Your task to perform on an android device: turn on bluetooth scan Image 0: 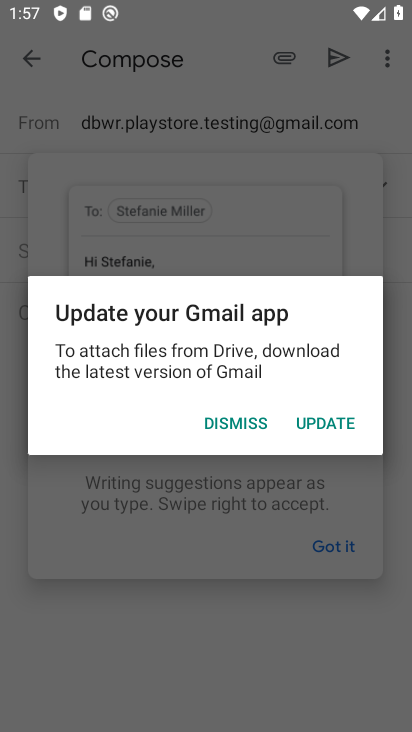
Step 0: press home button
Your task to perform on an android device: turn on bluetooth scan Image 1: 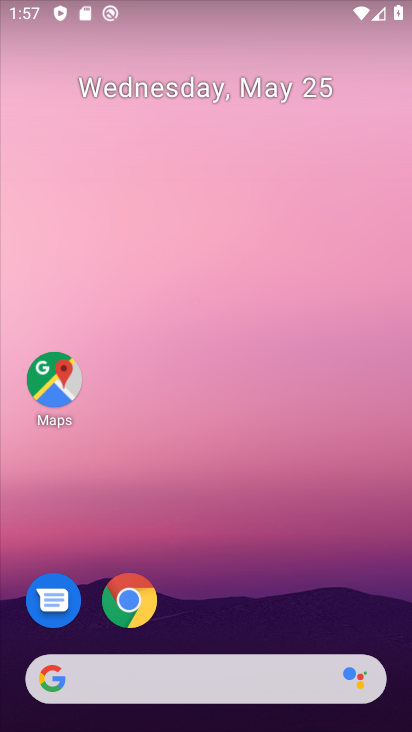
Step 1: drag from (245, 580) to (262, 128)
Your task to perform on an android device: turn on bluetooth scan Image 2: 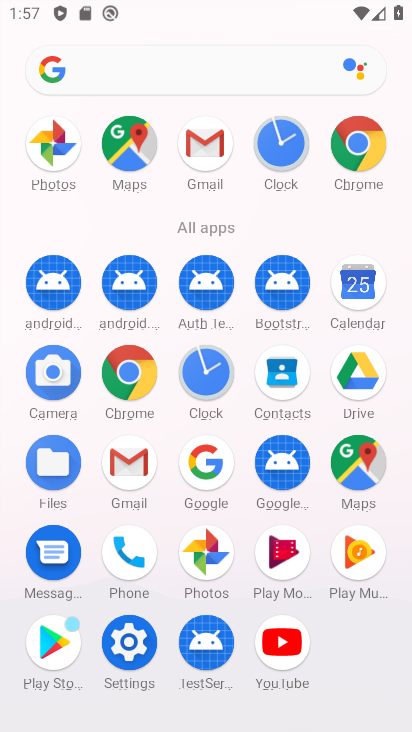
Step 2: click (129, 639)
Your task to perform on an android device: turn on bluetooth scan Image 3: 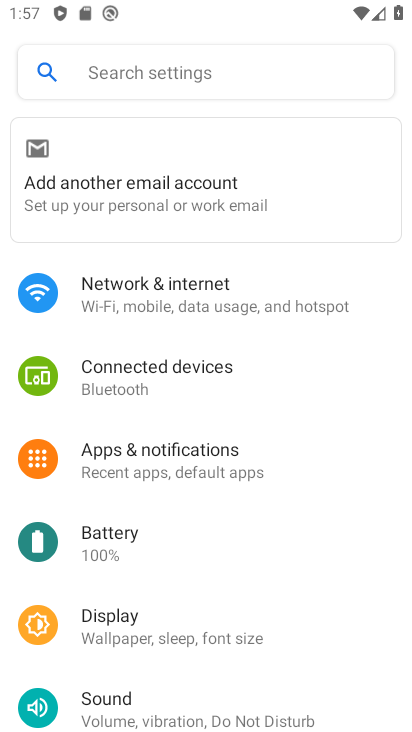
Step 3: drag from (193, 445) to (203, 198)
Your task to perform on an android device: turn on bluetooth scan Image 4: 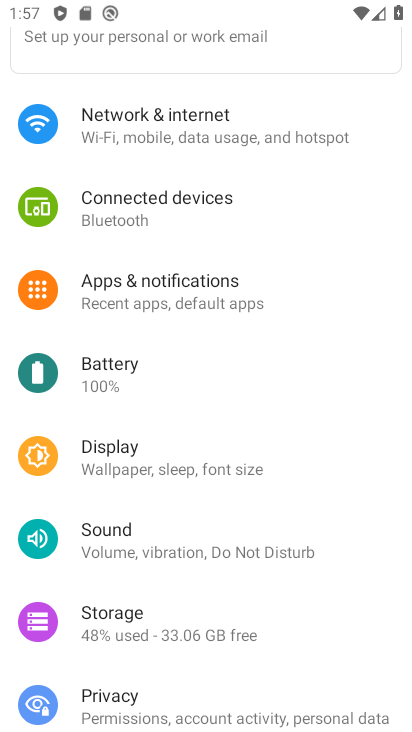
Step 4: drag from (135, 536) to (288, 139)
Your task to perform on an android device: turn on bluetooth scan Image 5: 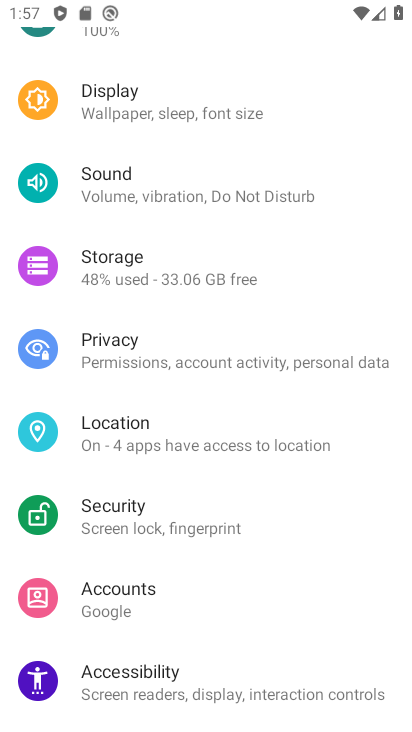
Step 5: click (131, 423)
Your task to perform on an android device: turn on bluetooth scan Image 6: 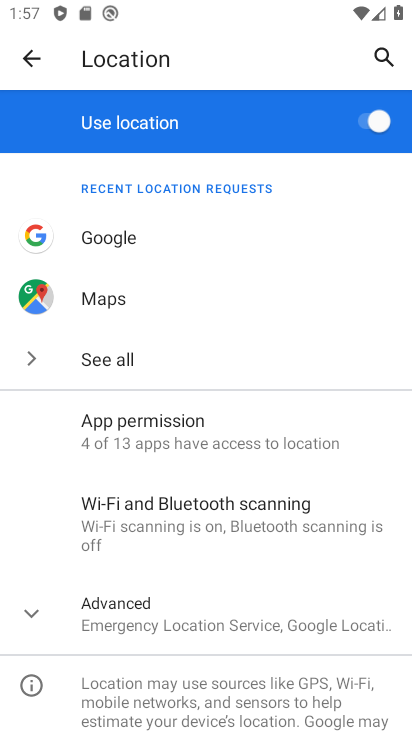
Step 6: click (249, 518)
Your task to perform on an android device: turn on bluetooth scan Image 7: 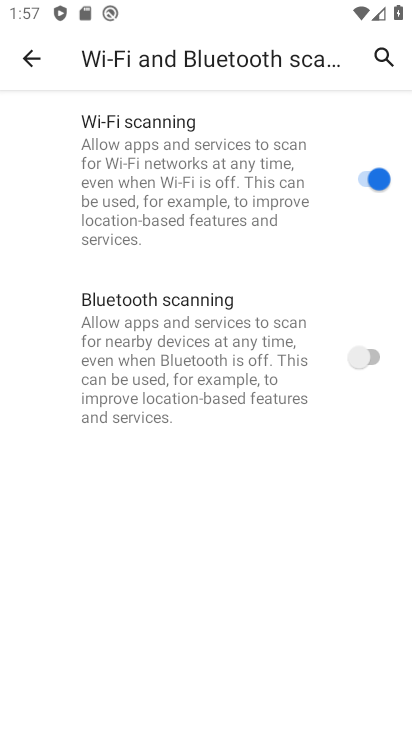
Step 7: click (352, 354)
Your task to perform on an android device: turn on bluetooth scan Image 8: 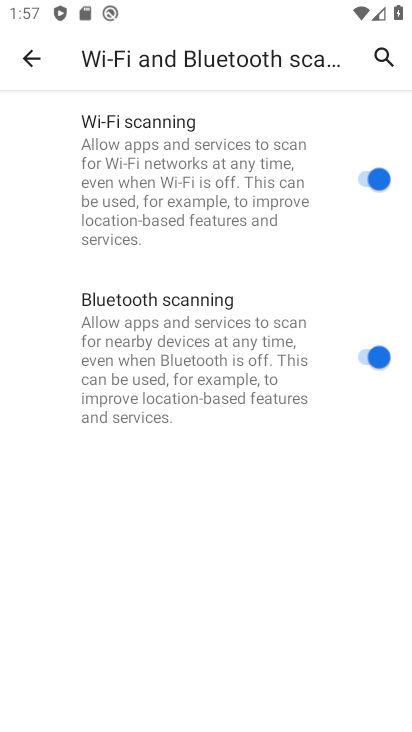
Step 8: task complete